Your task to perform on an android device: open a bookmark in the chrome app Image 0: 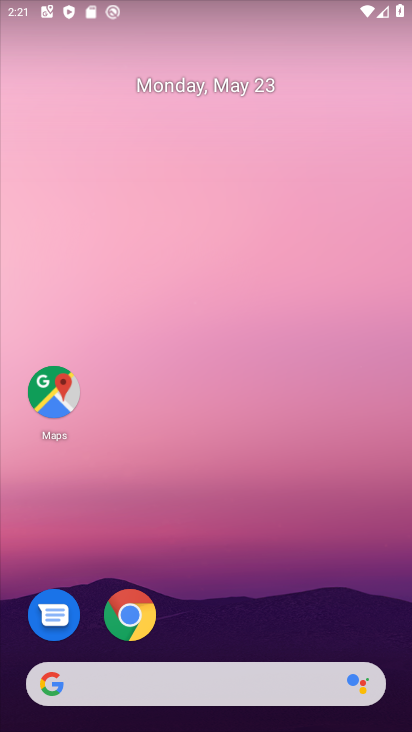
Step 0: click (124, 621)
Your task to perform on an android device: open a bookmark in the chrome app Image 1: 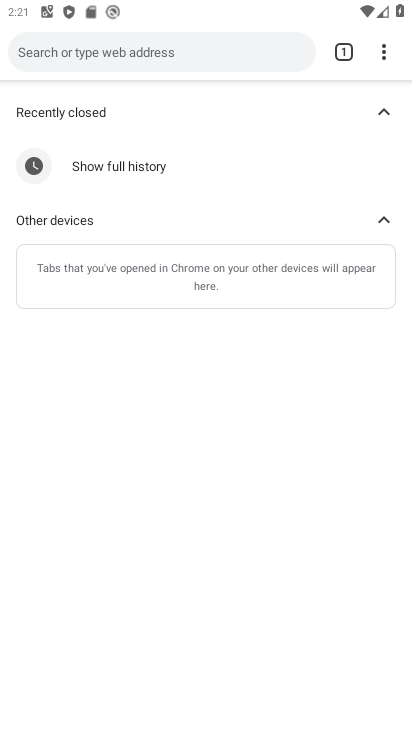
Step 1: click (383, 49)
Your task to perform on an android device: open a bookmark in the chrome app Image 2: 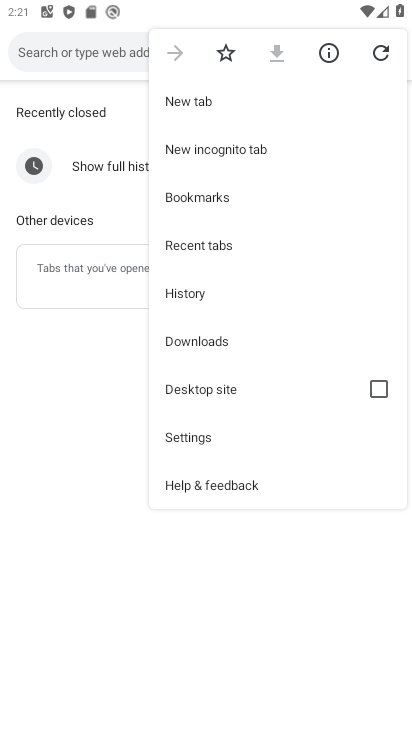
Step 2: click (214, 196)
Your task to perform on an android device: open a bookmark in the chrome app Image 3: 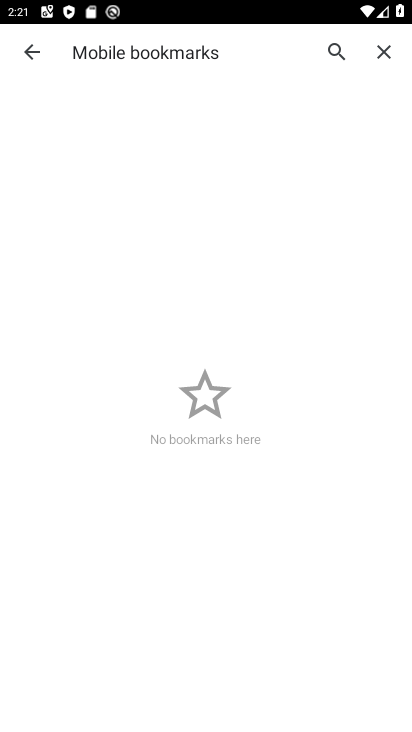
Step 3: task complete